Your task to perform on an android device: turn off smart reply in the gmail app Image 0: 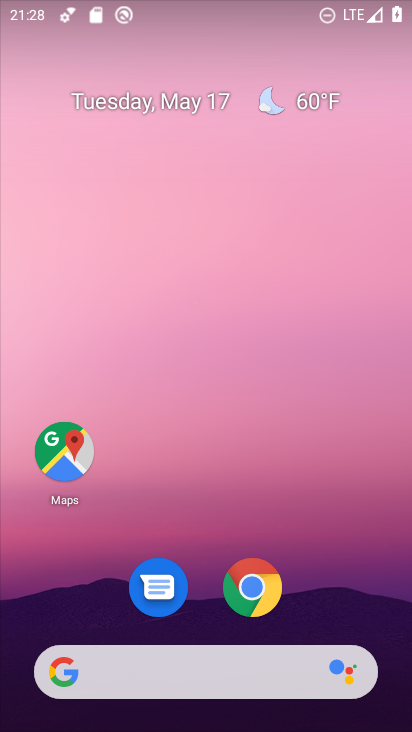
Step 0: drag from (170, 540) to (199, 175)
Your task to perform on an android device: turn off smart reply in the gmail app Image 1: 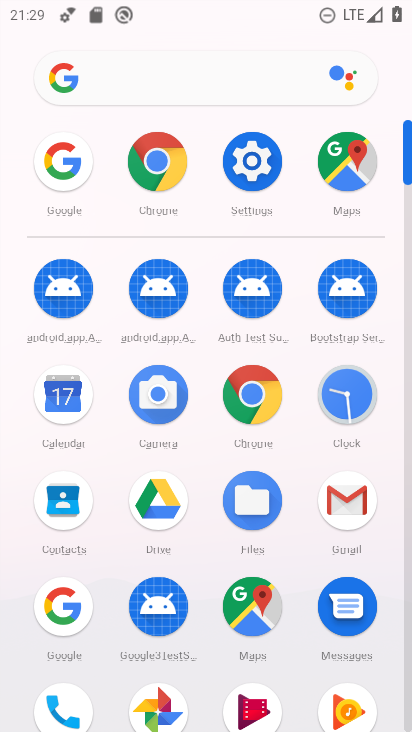
Step 1: click (357, 515)
Your task to perform on an android device: turn off smart reply in the gmail app Image 2: 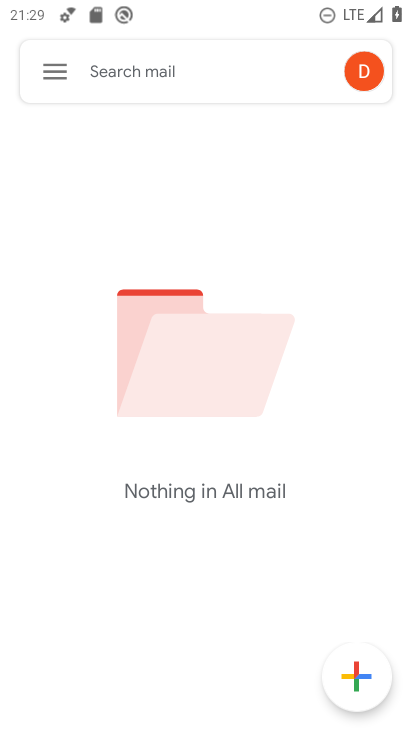
Step 2: click (42, 69)
Your task to perform on an android device: turn off smart reply in the gmail app Image 3: 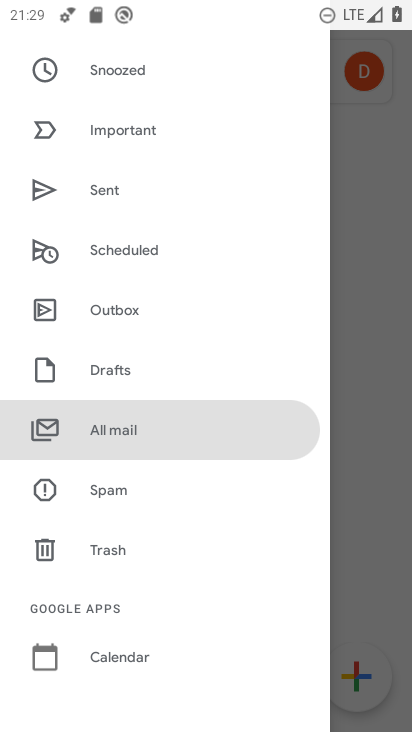
Step 3: drag from (170, 525) to (69, 32)
Your task to perform on an android device: turn off smart reply in the gmail app Image 4: 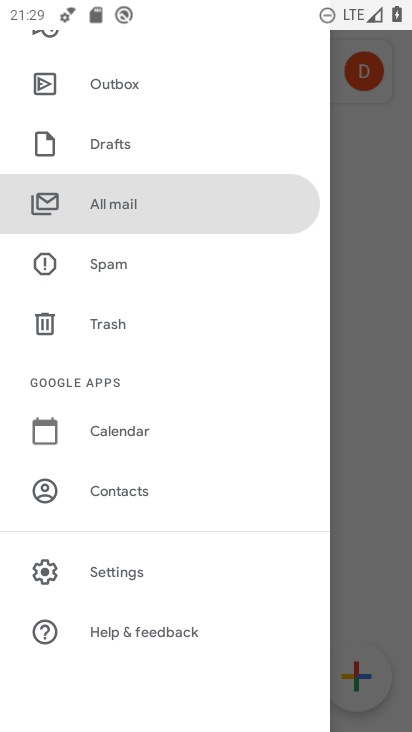
Step 4: click (87, 590)
Your task to perform on an android device: turn off smart reply in the gmail app Image 5: 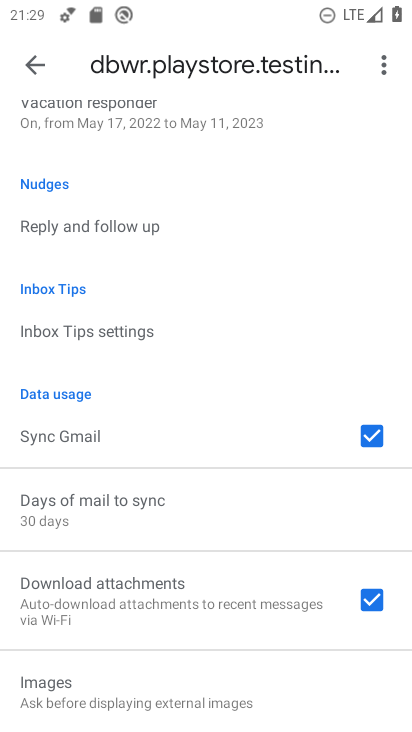
Step 5: drag from (161, 448) to (302, 635)
Your task to perform on an android device: turn off smart reply in the gmail app Image 6: 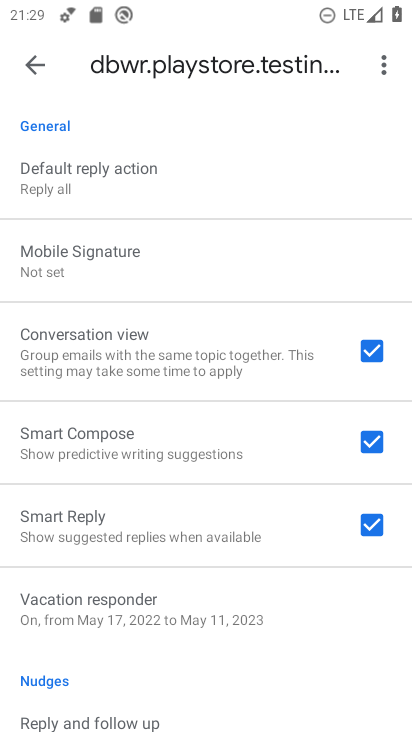
Step 6: drag from (194, 296) to (318, 670)
Your task to perform on an android device: turn off smart reply in the gmail app Image 7: 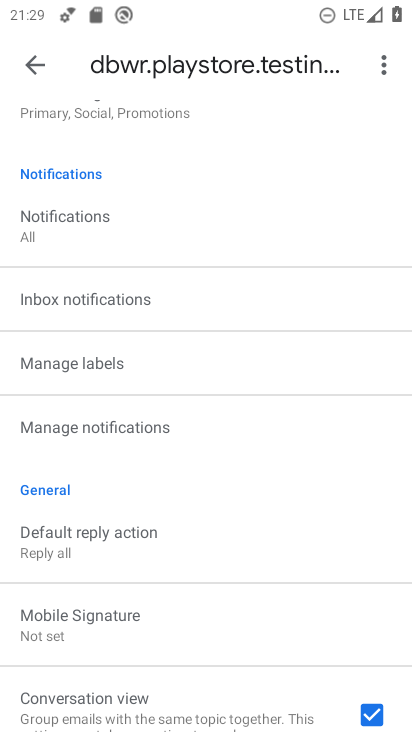
Step 7: drag from (249, 542) to (151, 109)
Your task to perform on an android device: turn off smart reply in the gmail app Image 8: 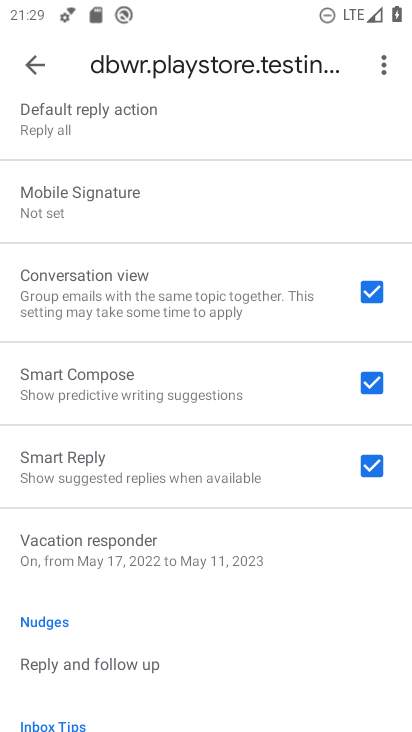
Step 8: click (371, 478)
Your task to perform on an android device: turn off smart reply in the gmail app Image 9: 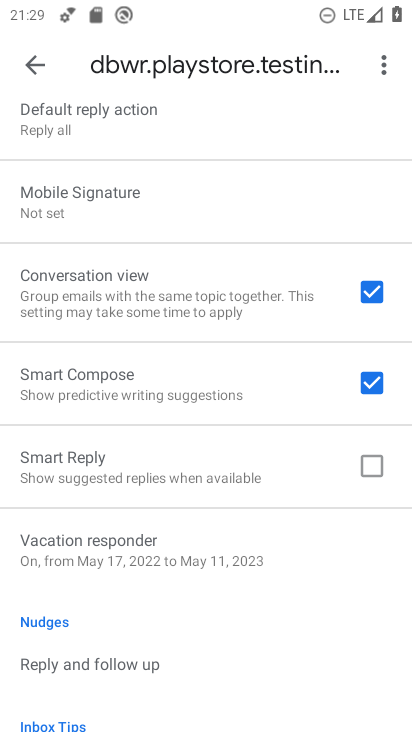
Step 9: task complete